Your task to perform on an android device: search for starred emails in the gmail app Image 0: 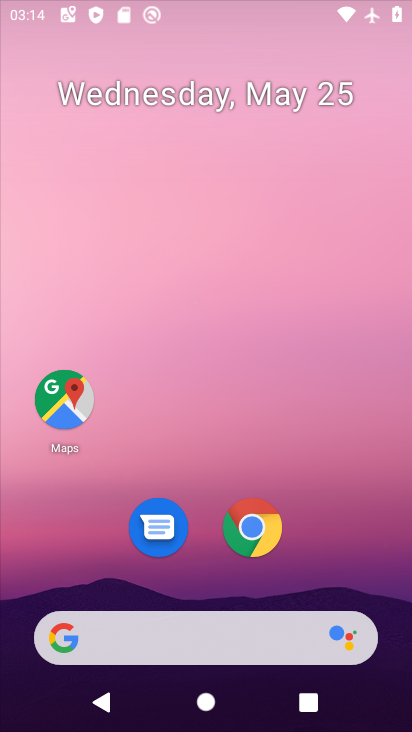
Step 0: drag from (187, 543) to (189, 40)
Your task to perform on an android device: search for starred emails in the gmail app Image 1: 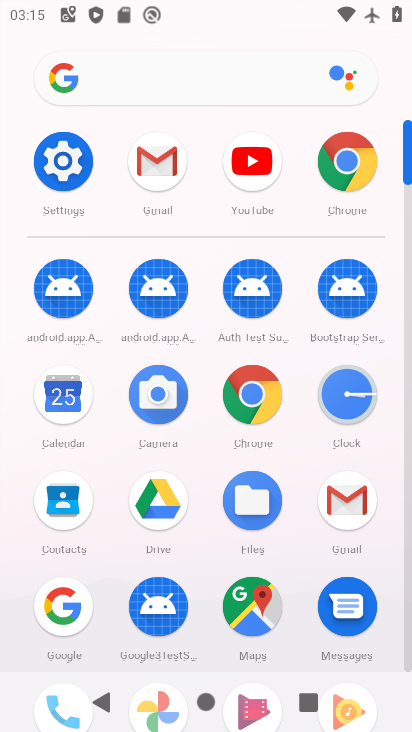
Step 1: click (348, 479)
Your task to perform on an android device: search for starred emails in the gmail app Image 2: 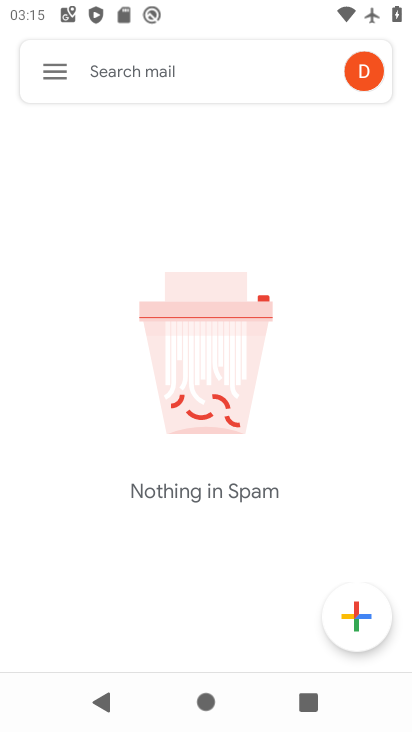
Step 2: click (66, 66)
Your task to perform on an android device: search for starred emails in the gmail app Image 3: 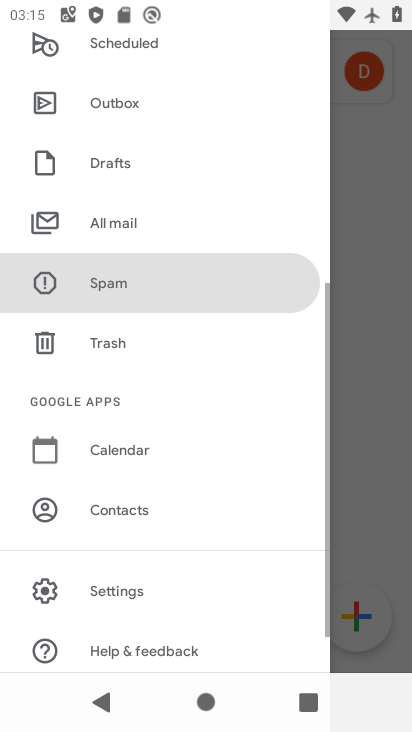
Step 3: drag from (148, 193) to (244, 716)
Your task to perform on an android device: search for starred emails in the gmail app Image 4: 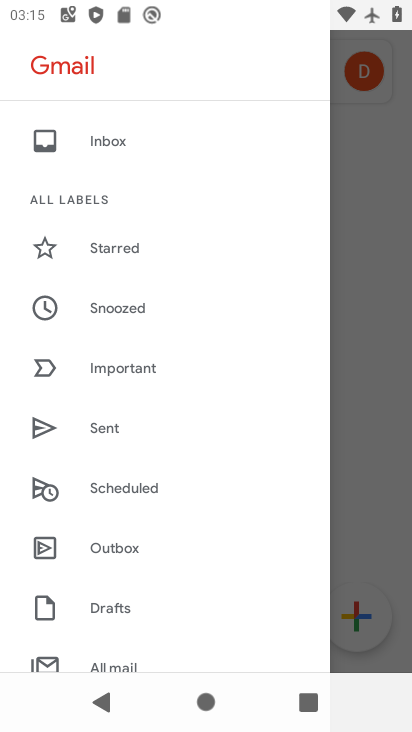
Step 4: click (118, 242)
Your task to perform on an android device: search for starred emails in the gmail app Image 5: 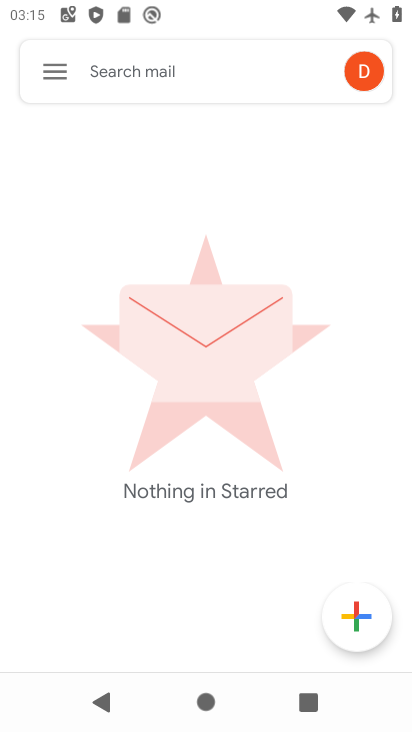
Step 5: task complete